Your task to perform on an android device: change the upload size in google photos Image 0: 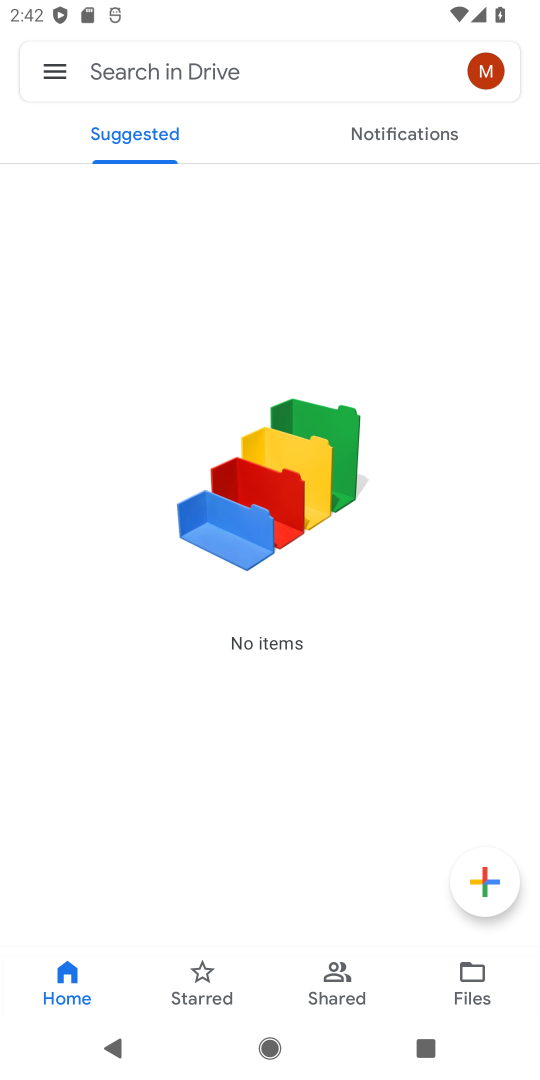
Step 0: press home button
Your task to perform on an android device: change the upload size in google photos Image 1: 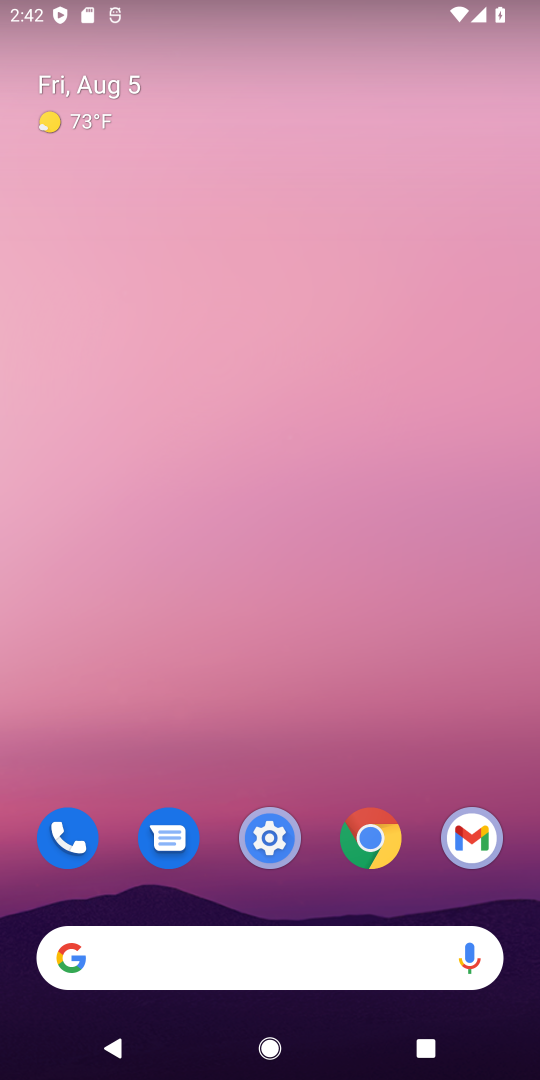
Step 1: drag from (203, 797) to (212, 212)
Your task to perform on an android device: change the upload size in google photos Image 2: 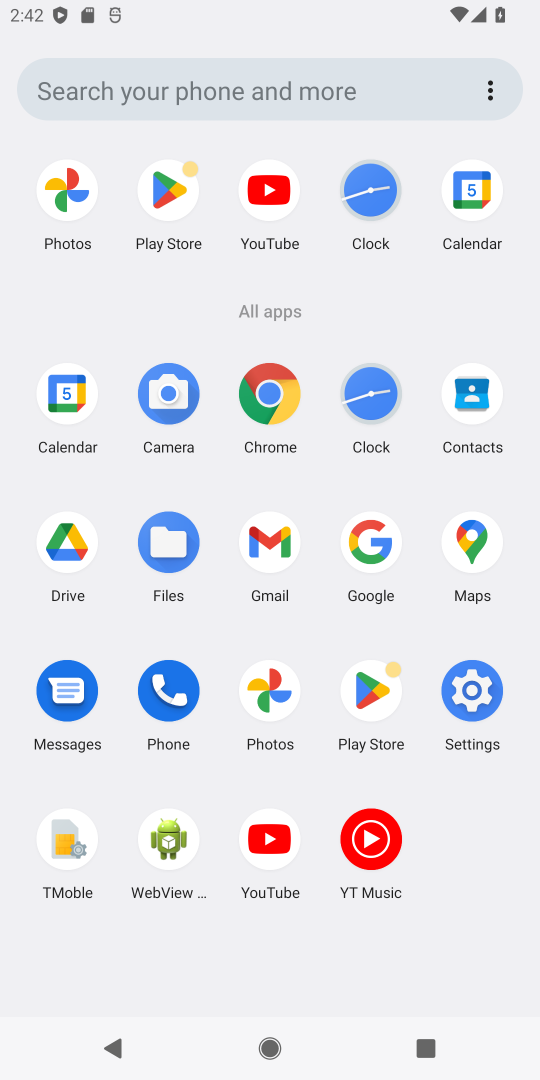
Step 2: click (240, 694)
Your task to perform on an android device: change the upload size in google photos Image 3: 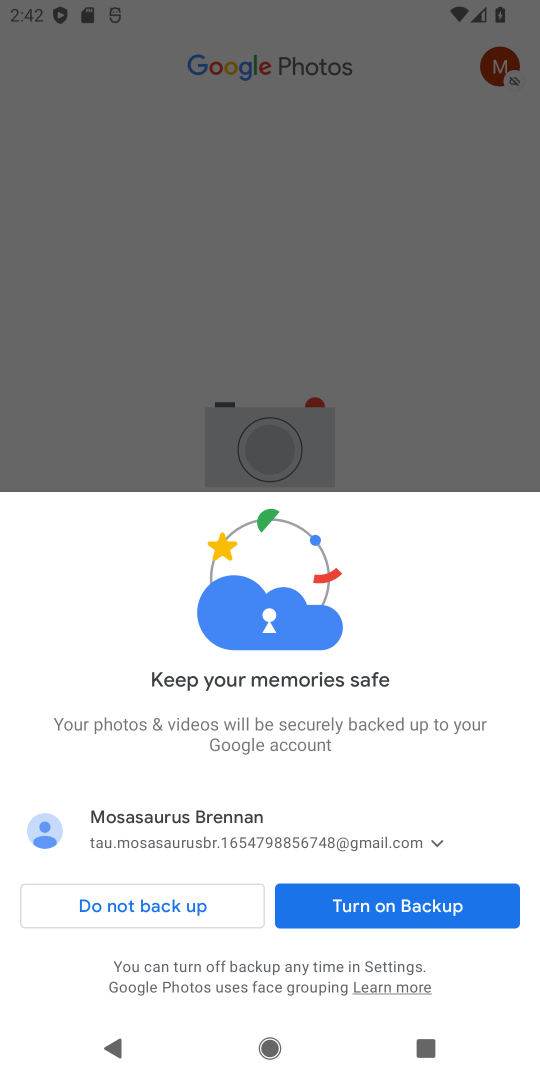
Step 3: click (351, 904)
Your task to perform on an android device: change the upload size in google photos Image 4: 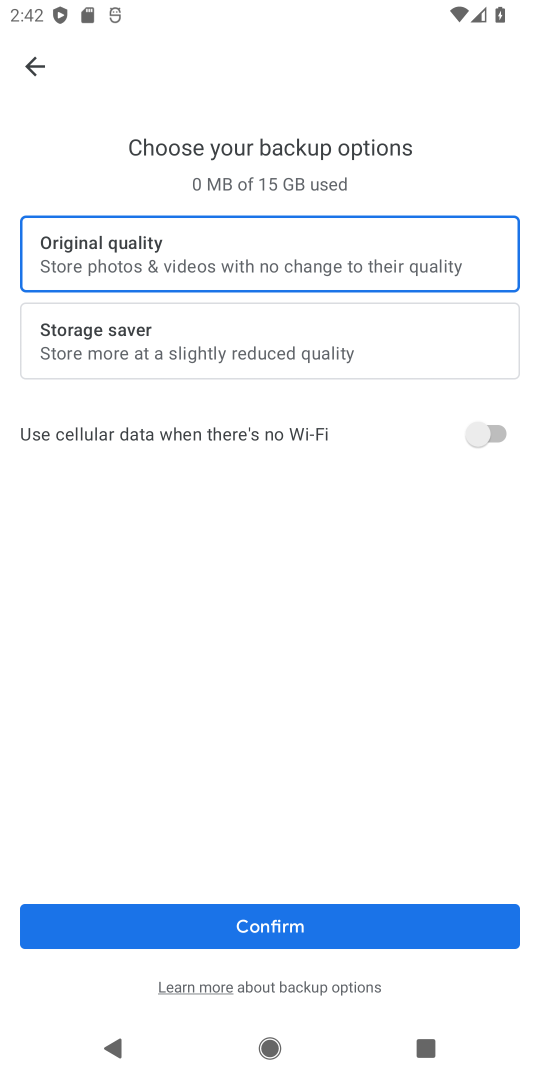
Step 4: click (351, 904)
Your task to perform on an android device: change the upload size in google photos Image 5: 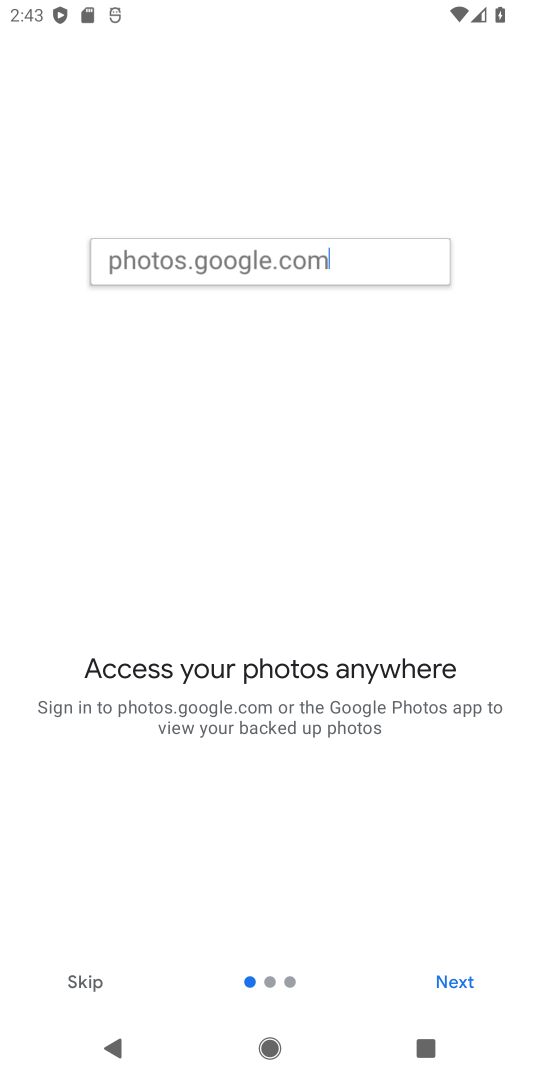
Step 5: click (90, 973)
Your task to perform on an android device: change the upload size in google photos Image 6: 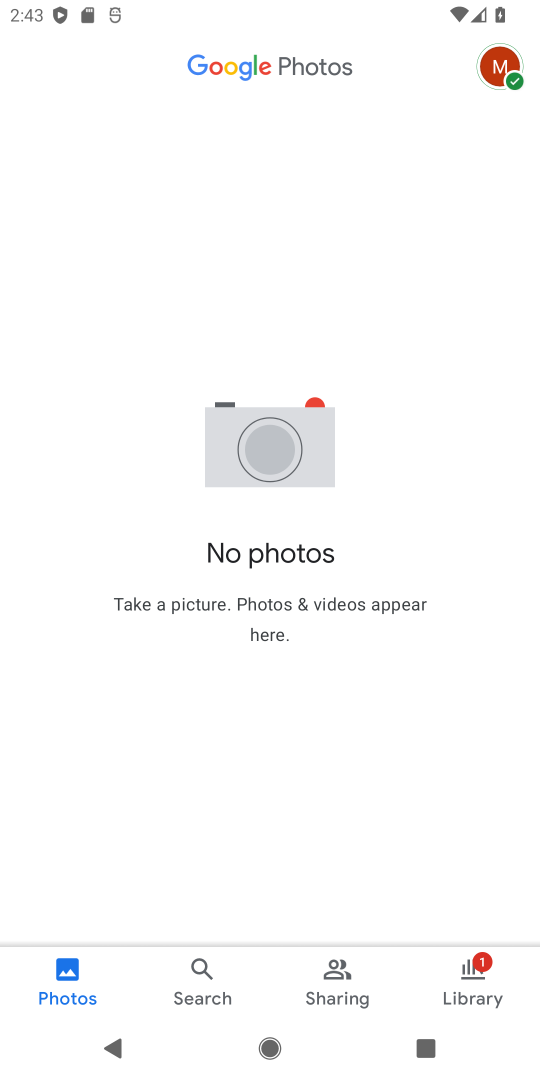
Step 6: click (503, 62)
Your task to perform on an android device: change the upload size in google photos Image 7: 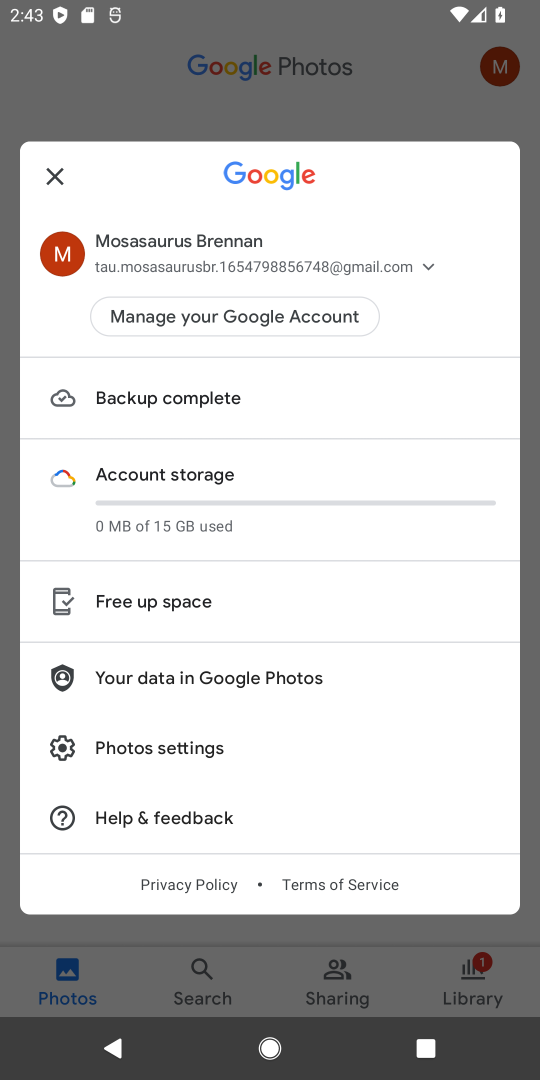
Step 7: drag from (279, 728) to (317, 403)
Your task to perform on an android device: change the upload size in google photos Image 8: 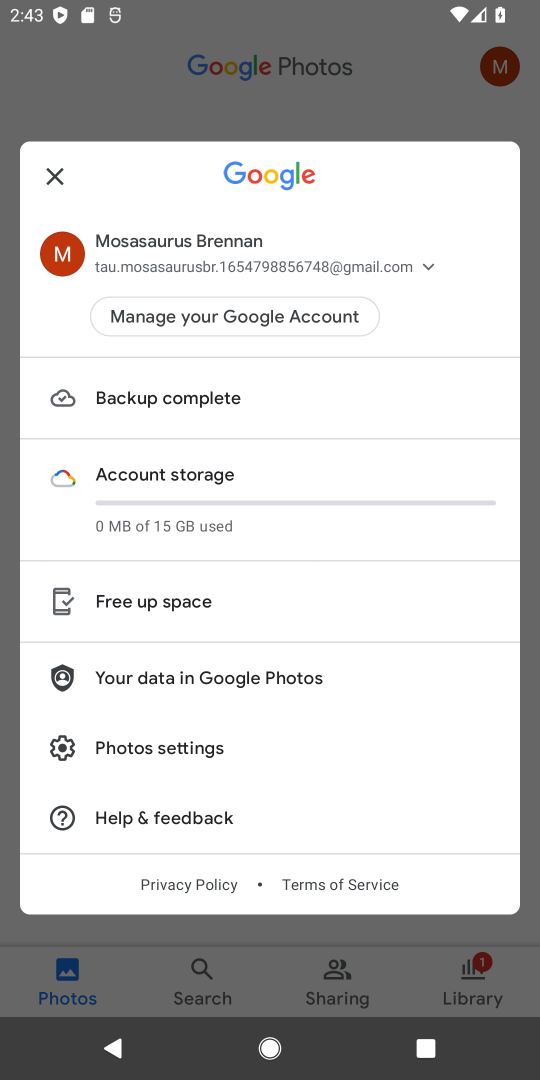
Step 8: click (186, 755)
Your task to perform on an android device: change the upload size in google photos Image 9: 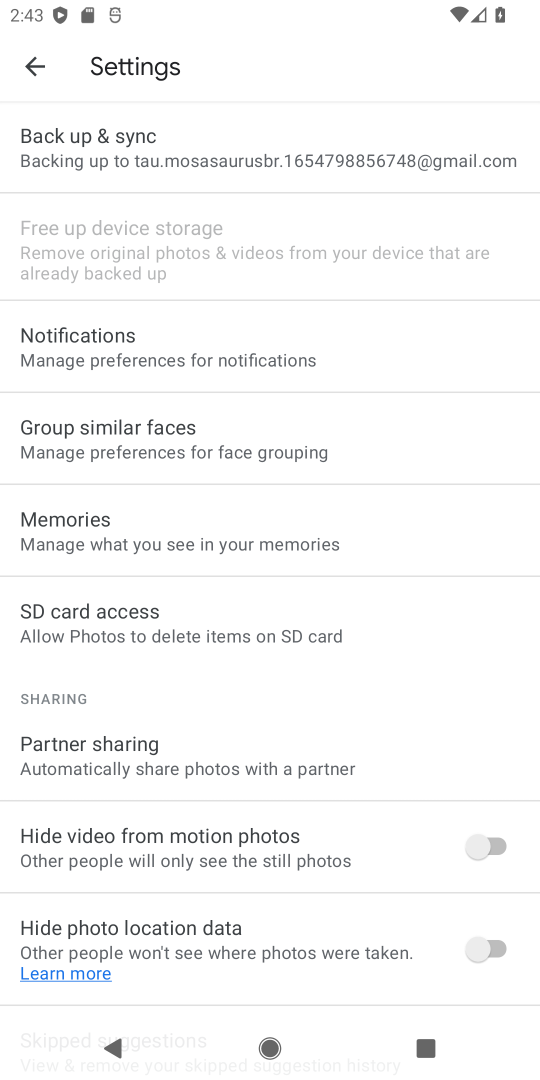
Step 9: click (158, 128)
Your task to perform on an android device: change the upload size in google photos Image 10: 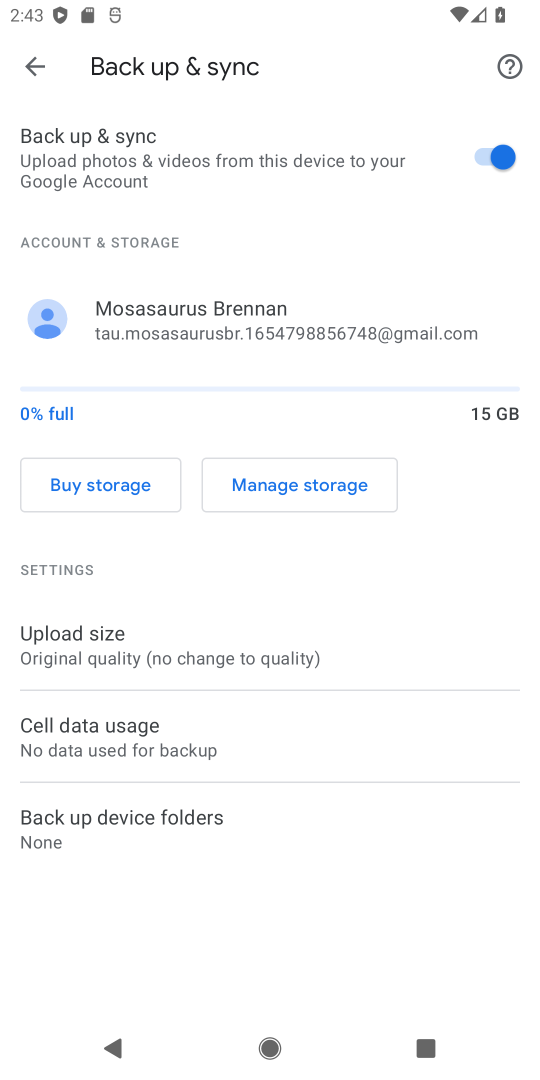
Step 10: click (118, 641)
Your task to perform on an android device: change the upload size in google photos Image 11: 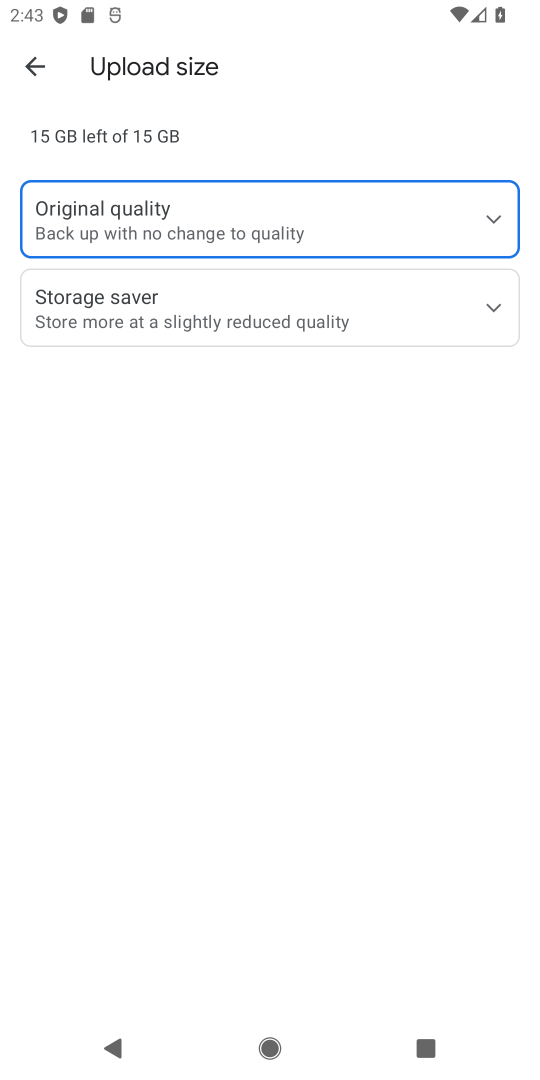
Step 11: click (88, 327)
Your task to perform on an android device: change the upload size in google photos Image 12: 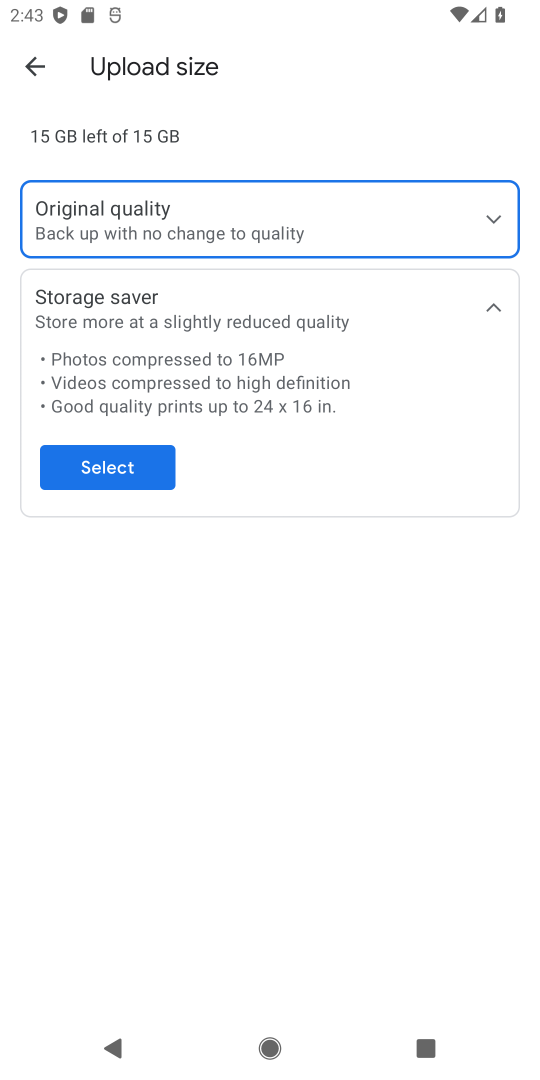
Step 12: click (110, 466)
Your task to perform on an android device: change the upload size in google photos Image 13: 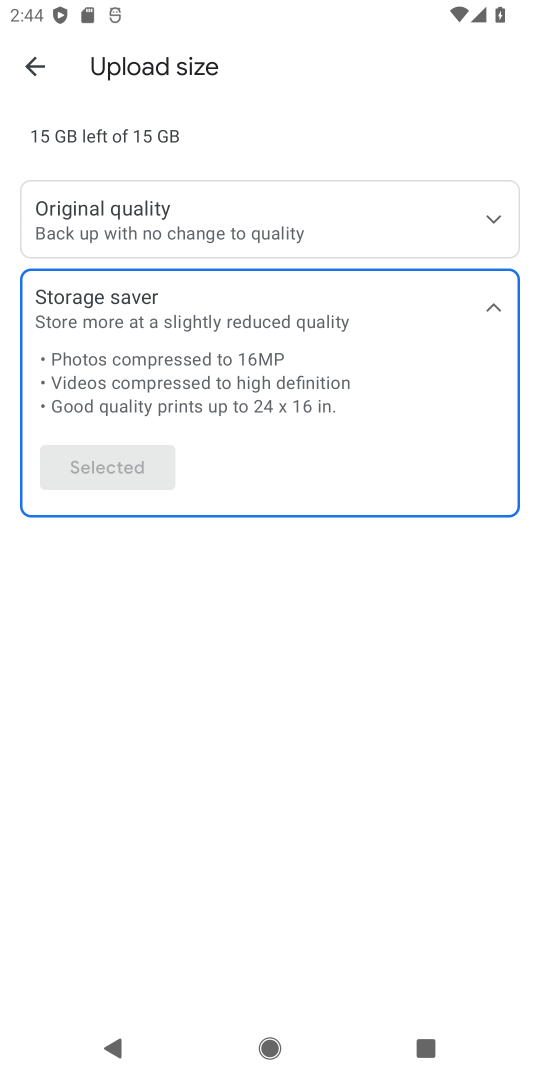
Step 13: task complete